Your task to perform on an android device: Go to internet settings Image 0: 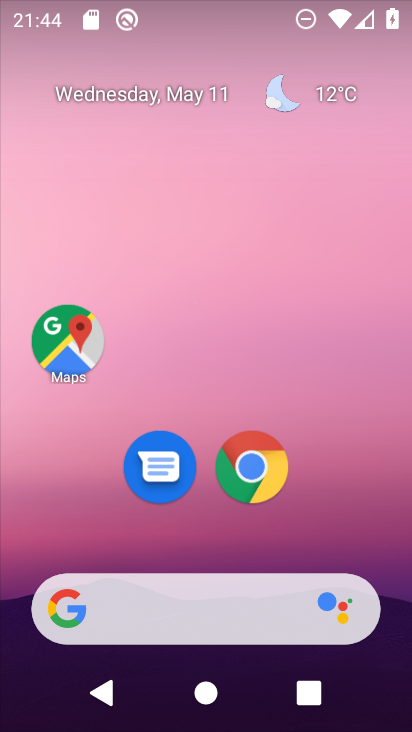
Step 0: drag from (201, 552) to (215, 52)
Your task to perform on an android device: Go to internet settings Image 1: 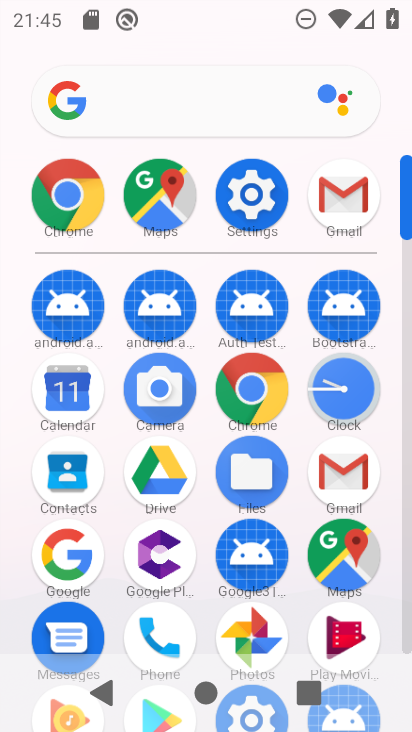
Step 1: click (250, 193)
Your task to perform on an android device: Go to internet settings Image 2: 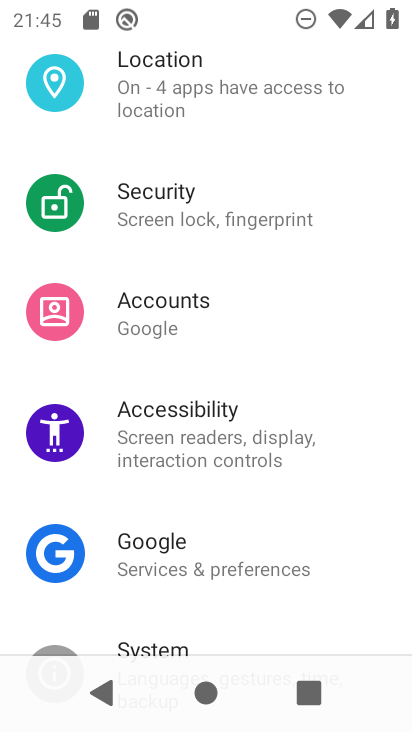
Step 2: drag from (190, 117) to (190, 683)
Your task to perform on an android device: Go to internet settings Image 3: 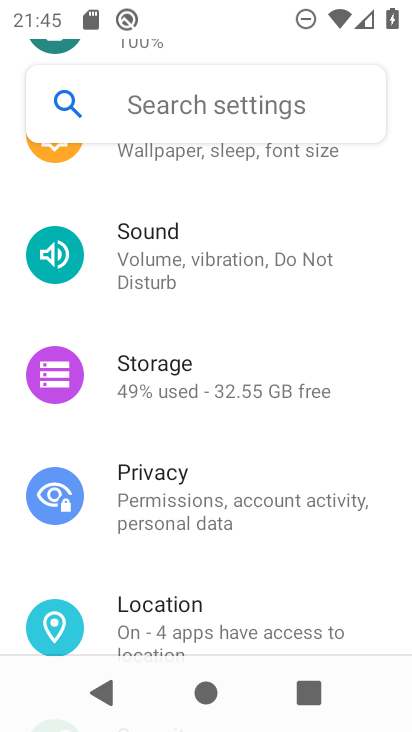
Step 3: drag from (184, 196) to (210, 703)
Your task to perform on an android device: Go to internet settings Image 4: 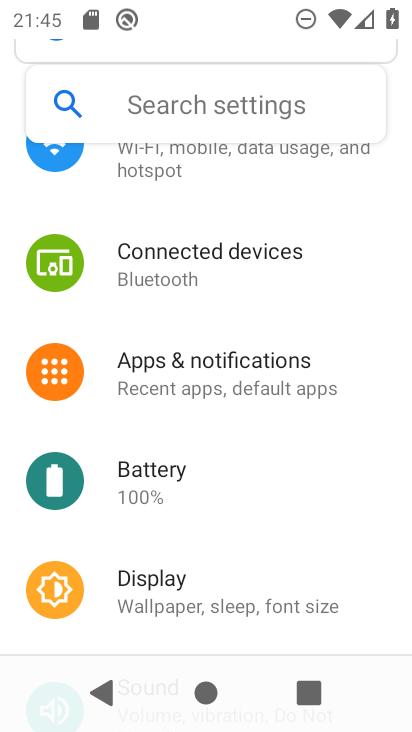
Step 4: click (192, 158)
Your task to perform on an android device: Go to internet settings Image 5: 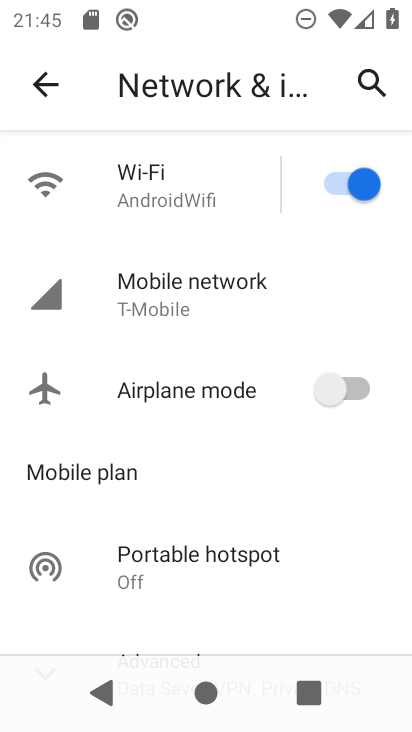
Step 5: drag from (206, 514) to (213, 129)
Your task to perform on an android device: Go to internet settings Image 6: 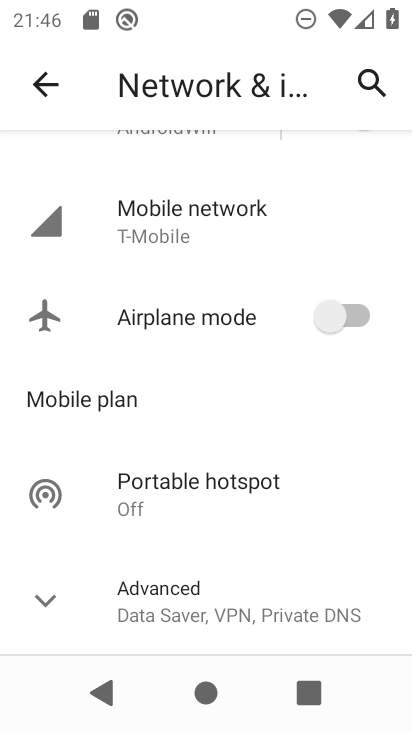
Step 6: click (42, 598)
Your task to perform on an android device: Go to internet settings Image 7: 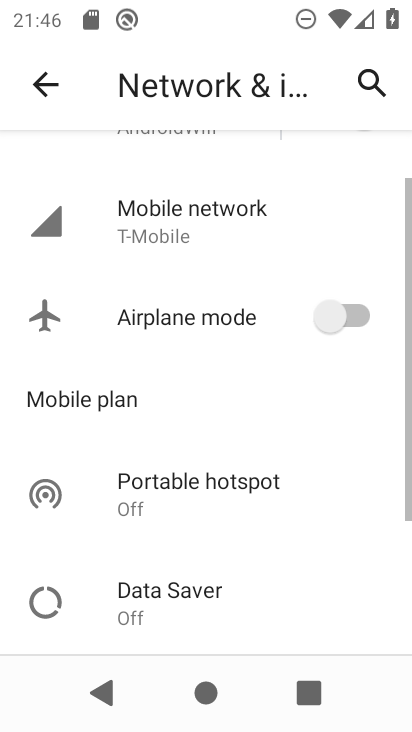
Step 7: task complete